Your task to perform on an android device: manage bookmarks in the chrome app Image 0: 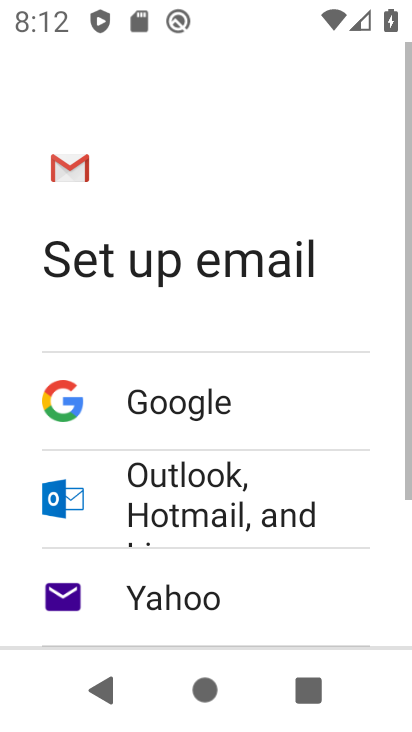
Step 0: press back button
Your task to perform on an android device: manage bookmarks in the chrome app Image 1: 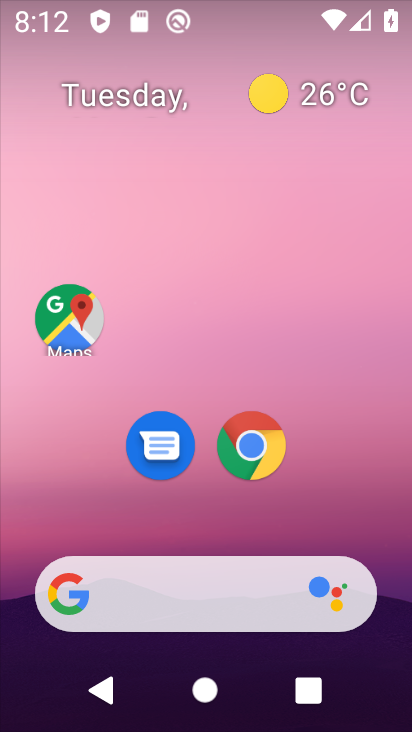
Step 1: click (251, 447)
Your task to perform on an android device: manage bookmarks in the chrome app Image 2: 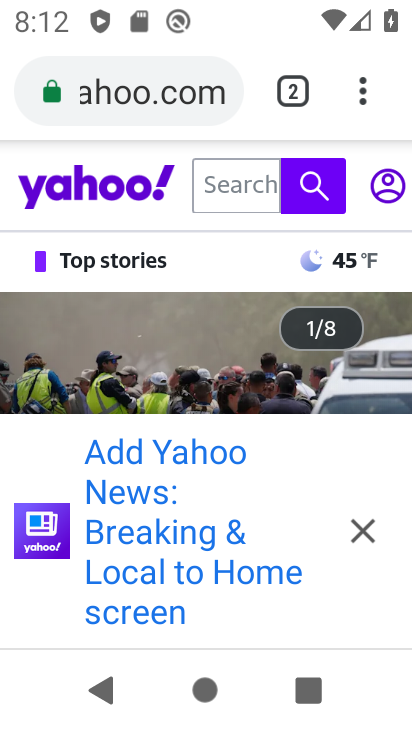
Step 2: click (363, 89)
Your task to perform on an android device: manage bookmarks in the chrome app Image 3: 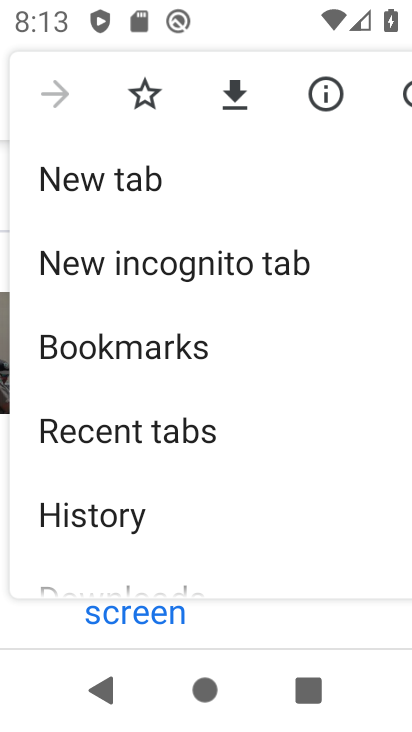
Step 3: drag from (121, 392) to (142, 311)
Your task to perform on an android device: manage bookmarks in the chrome app Image 4: 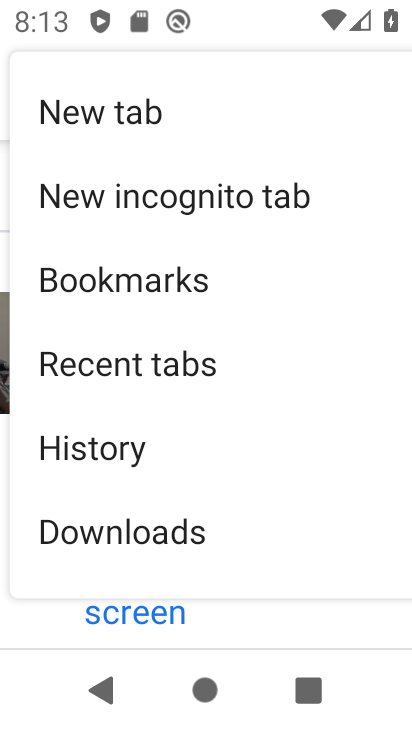
Step 4: drag from (129, 408) to (203, 313)
Your task to perform on an android device: manage bookmarks in the chrome app Image 5: 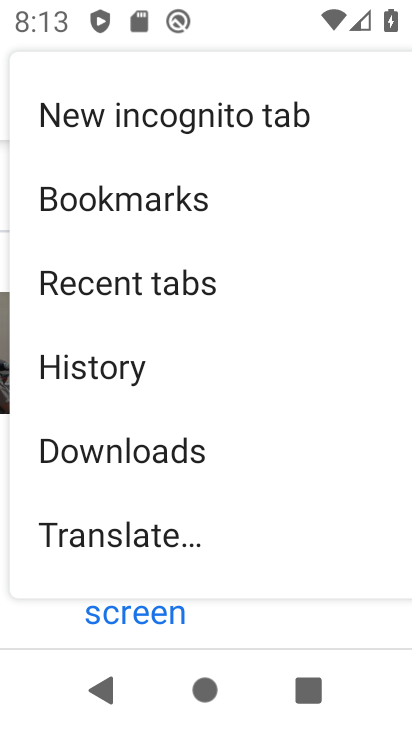
Step 5: drag from (118, 412) to (200, 325)
Your task to perform on an android device: manage bookmarks in the chrome app Image 6: 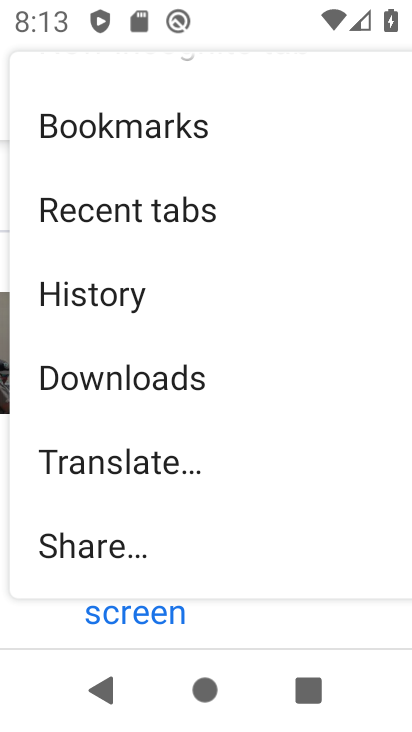
Step 6: drag from (106, 419) to (186, 330)
Your task to perform on an android device: manage bookmarks in the chrome app Image 7: 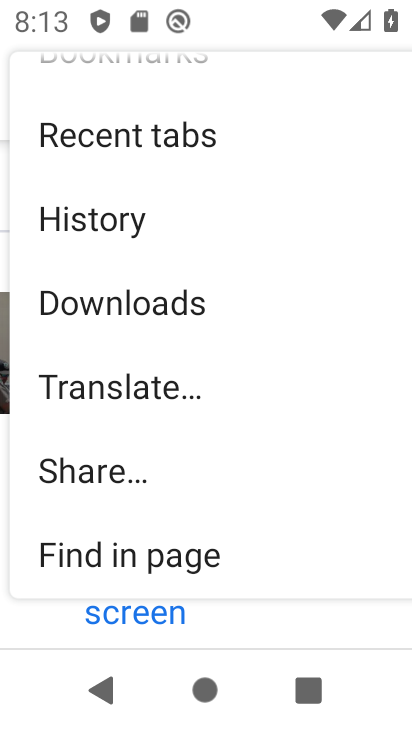
Step 7: drag from (100, 431) to (170, 351)
Your task to perform on an android device: manage bookmarks in the chrome app Image 8: 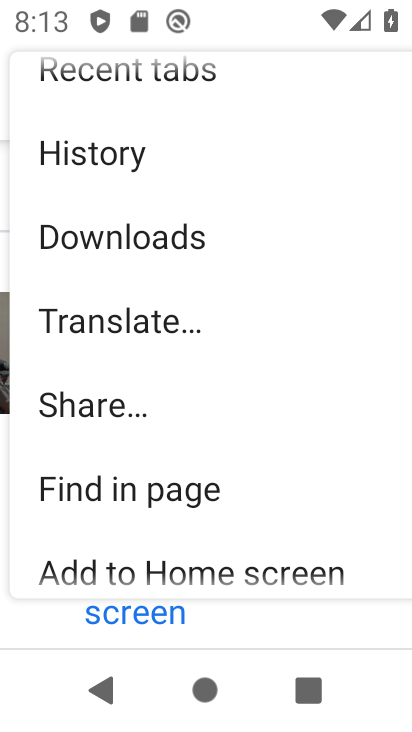
Step 8: drag from (95, 447) to (170, 364)
Your task to perform on an android device: manage bookmarks in the chrome app Image 9: 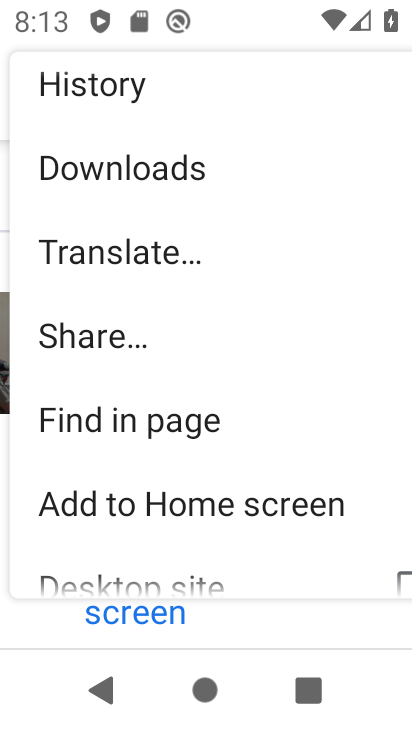
Step 9: drag from (267, 219) to (254, 316)
Your task to perform on an android device: manage bookmarks in the chrome app Image 10: 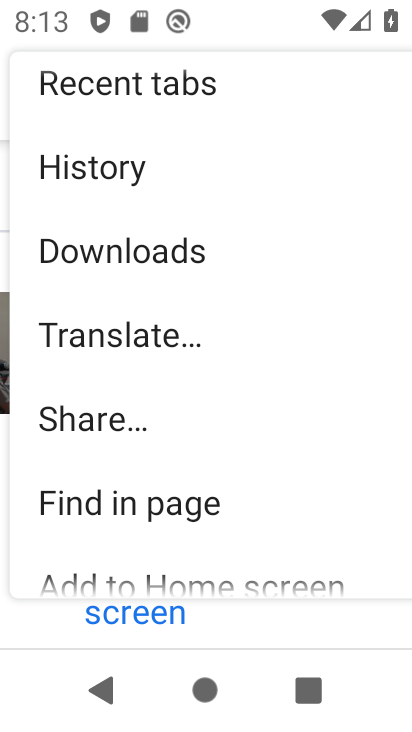
Step 10: drag from (244, 222) to (265, 360)
Your task to perform on an android device: manage bookmarks in the chrome app Image 11: 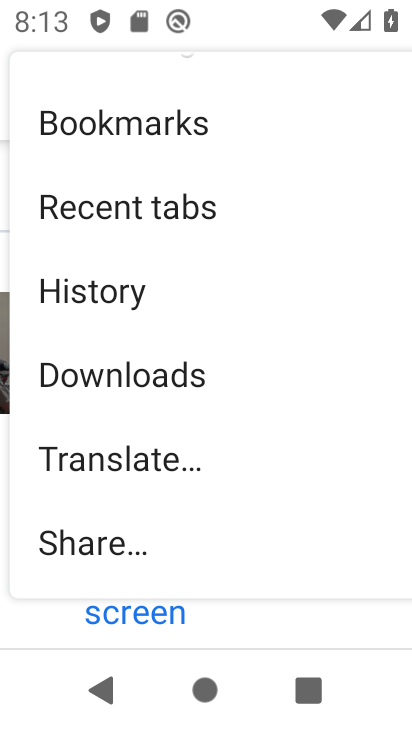
Step 11: click (174, 138)
Your task to perform on an android device: manage bookmarks in the chrome app Image 12: 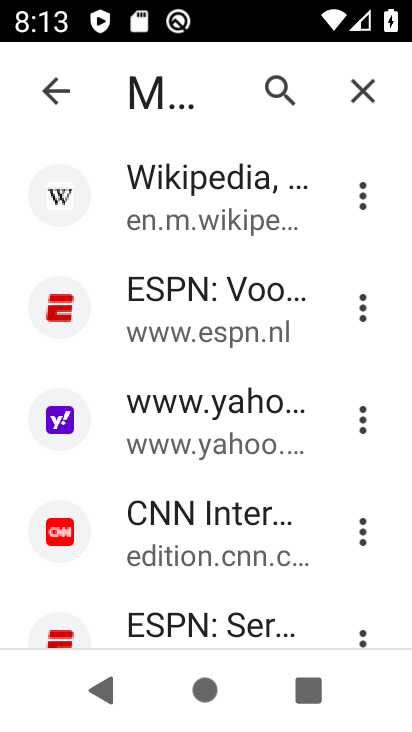
Step 12: click (361, 194)
Your task to perform on an android device: manage bookmarks in the chrome app Image 13: 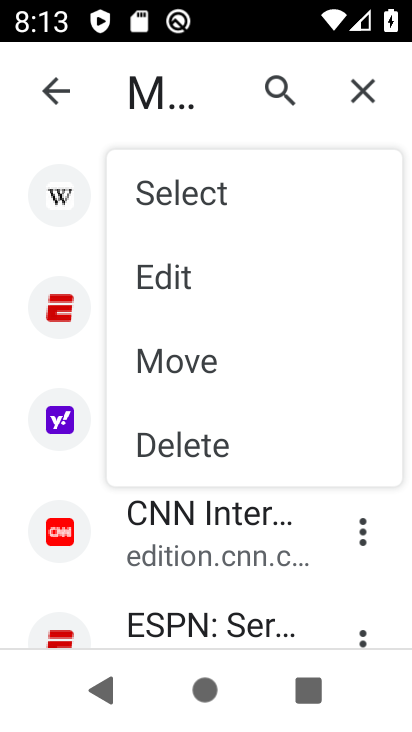
Step 13: click (163, 286)
Your task to perform on an android device: manage bookmarks in the chrome app Image 14: 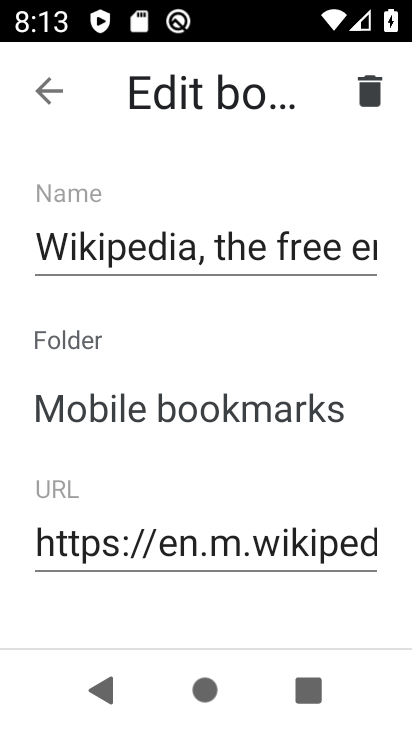
Step 14: click (262, 252)
Your task to perform on an android device: manage bookmarks in the chrome app Image 15: 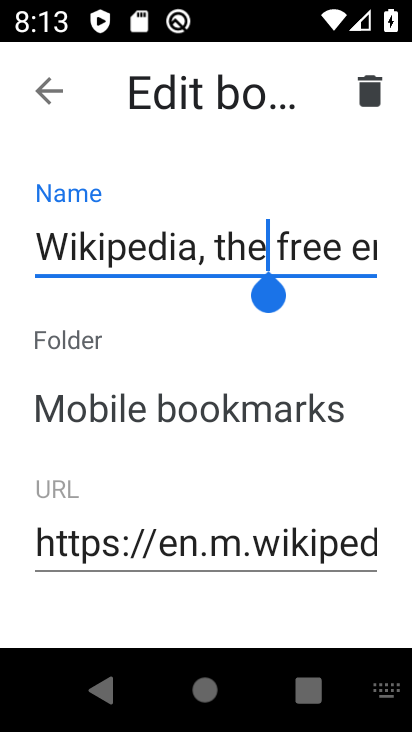
Step 15: click (230, 419)
Your task to perform on an android device: manage bookmarks in the chrome app Image 16: 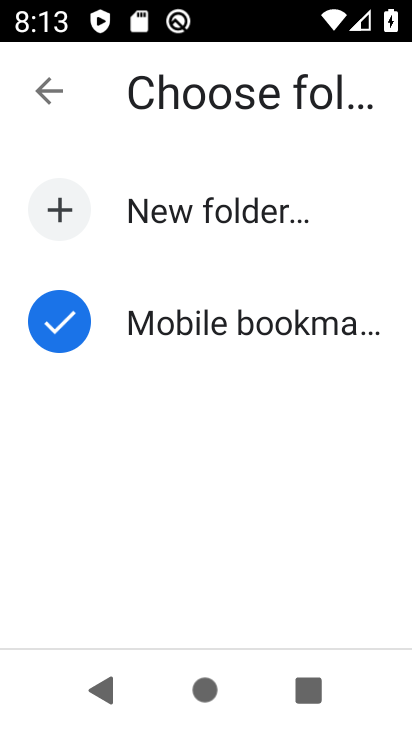
Step 16: click (253, 338)
Your task to perform on an android device: manage bookmarks in the chrome app Image 17: 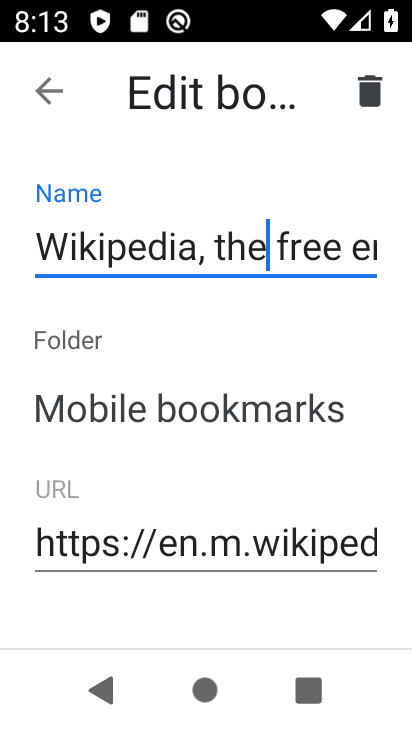
Step 17: click (245, 98)
Your task to perform on an android device: manage bookmarks in the chrome app Image 18: 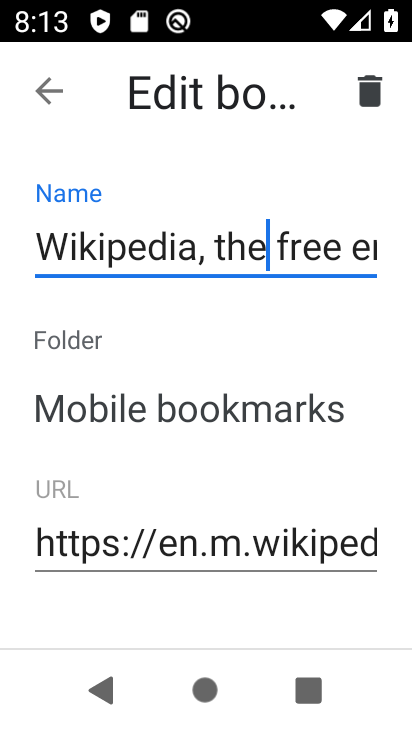
Step 18: task complete